Your task to perform on an android device: find snoozed emails in the gmail app Image 0: 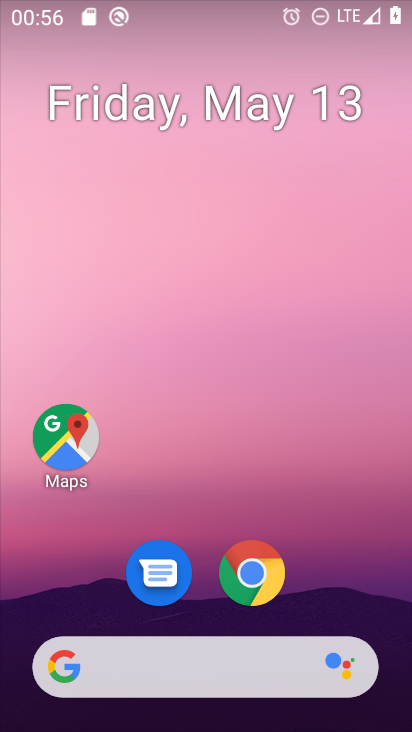
Step 0: drag from (193, 599) to (240, 85)
Your task to perform on an android device: find snoozed emails in the gmail app Image 1: 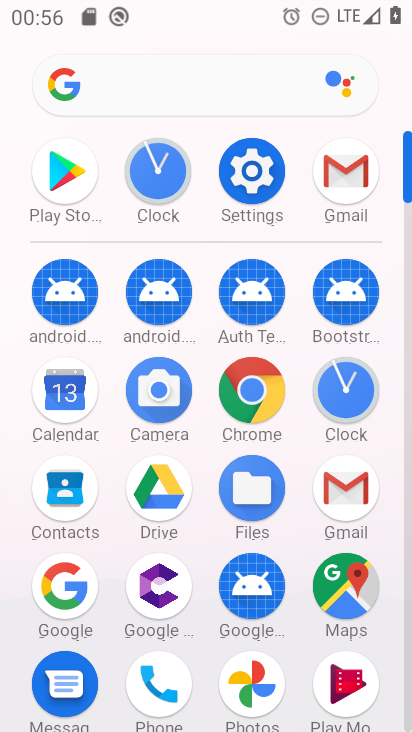
Step 1: click (345, 171)
Your task to perform on an android device: find snoozed emails in the gmail app Image 2: 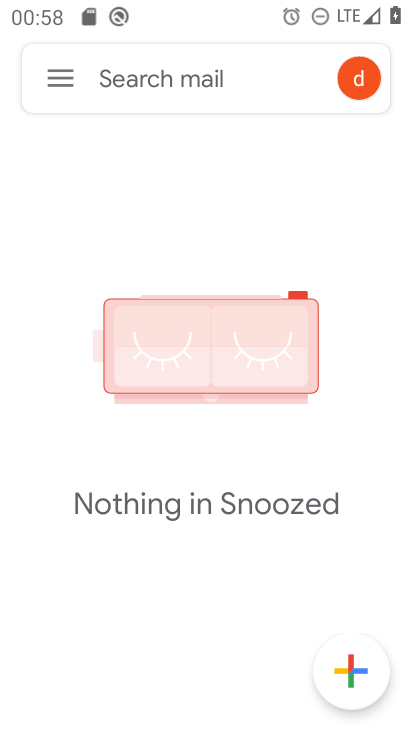
Step 2: task complete